Your task to perform on an android device: Go to Wikipedia Image 0: 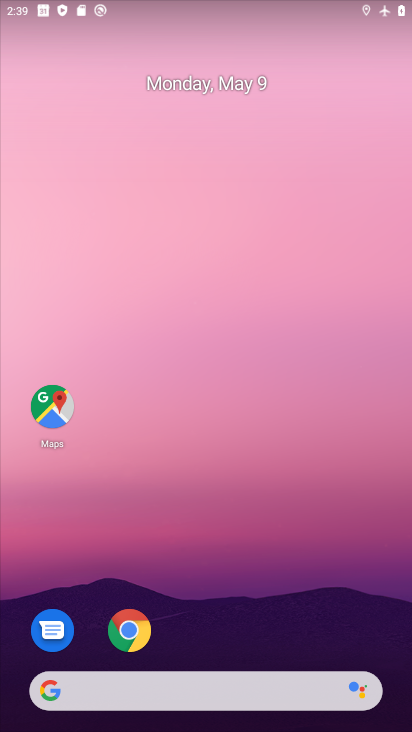
Step 0: drag from (306, 637) to (169, 148)
Your task to perform on an android device: Go to Wikipedia Image 1: 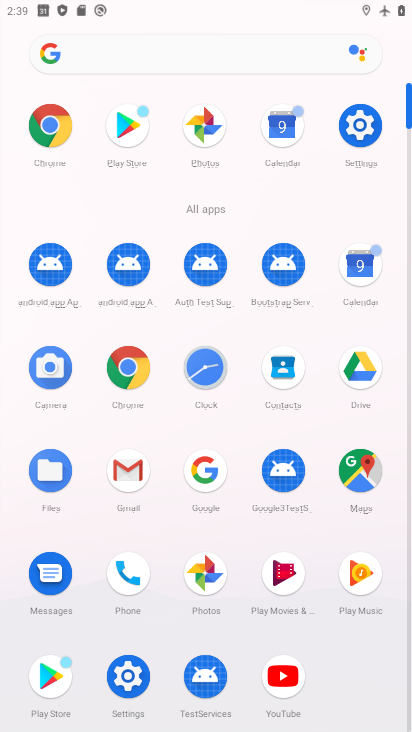
Step 1: click (45, 115)
Your task to perform on an android device: Go to Wikipedia Image 2: 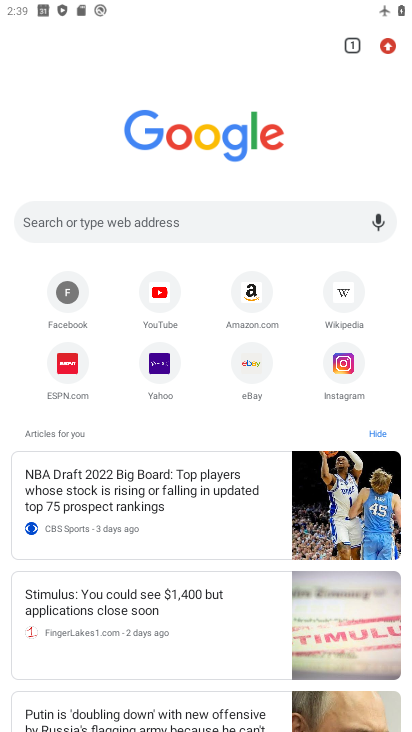
Step 2: click (337, 298)
Your task to perform on an android device: Go to Wikipedia Image 3: 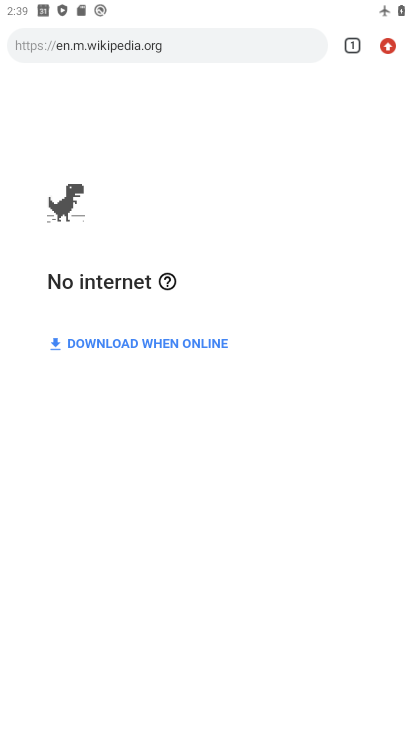
Step 3: task complete